Your task to perform on an android device: open sync settings in chrome Image 0: 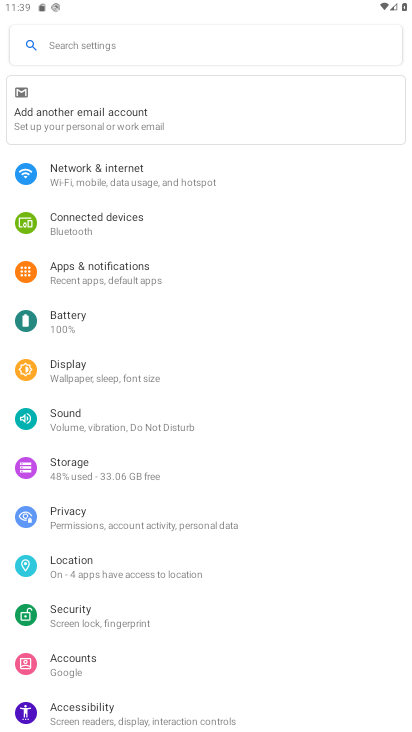
Step 0: press home button
Your task to perform on an android device: open sync settings in chrome Image 1: 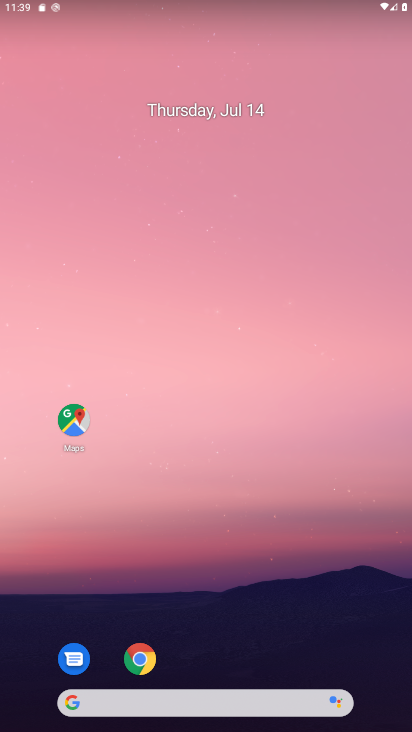
Step 1: drag from (246, 664) to (235, 144)
Your task to perform on an android device: open sync settings in chrome Image 2: 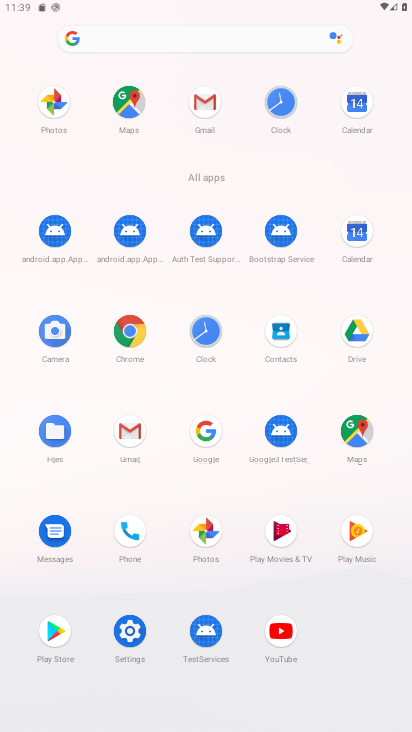
Step 2: click (137, 338)
Your task to perform on an android device: open sync settings in chrome Image 3: 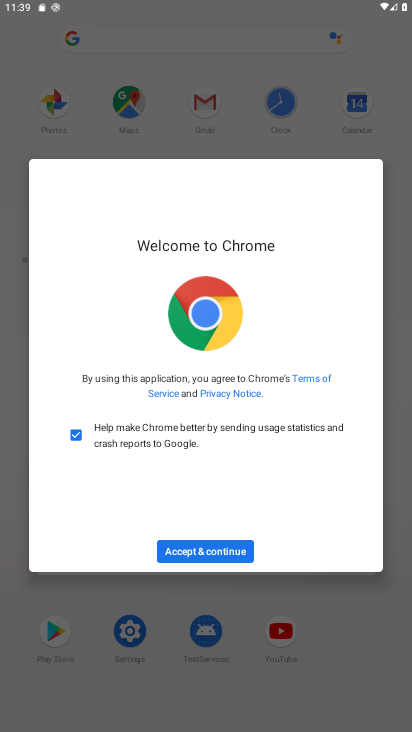
Step 3: click (195, 550)
Your task to perform on an android device: open sync settings in chrome Image 4: 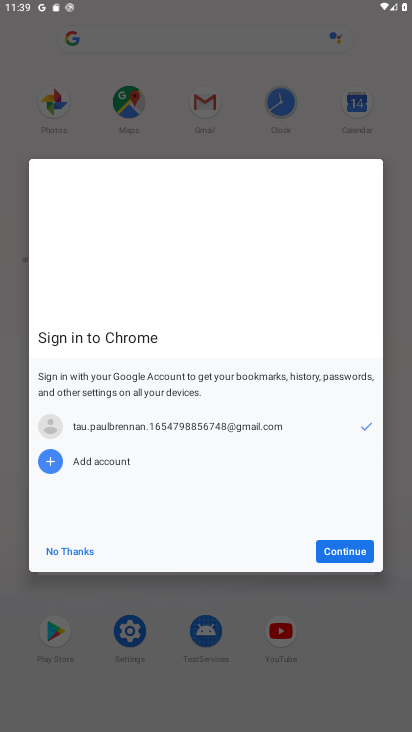
Step 4: click (338, 558)
Your task to perform on an android device: open sync settings in chrome Image 5: 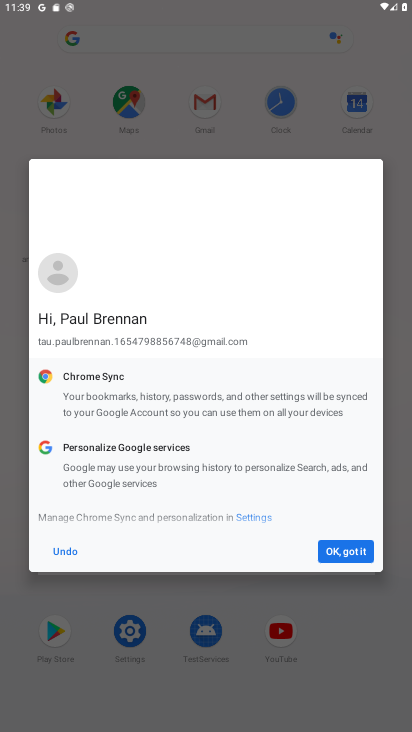
Step 5: click (338, 558)
Your task to perform on an android device: open sync settings in chrome Image 6: 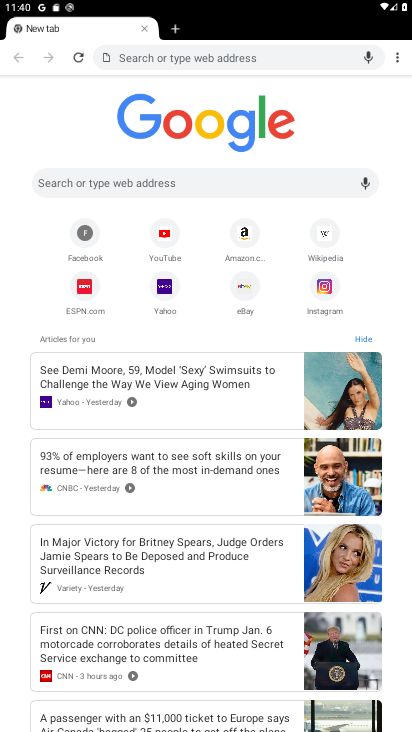
Step 6: click (397, 57)
Your task to perform on an android device: open sync settings in chrome Image 7: 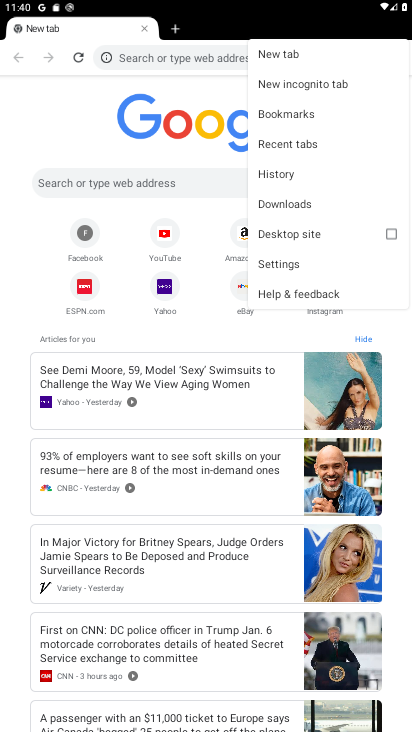
Step 7: click (316, 263)
Your task to perform on an android device: open sync settings in chrome Image 8: 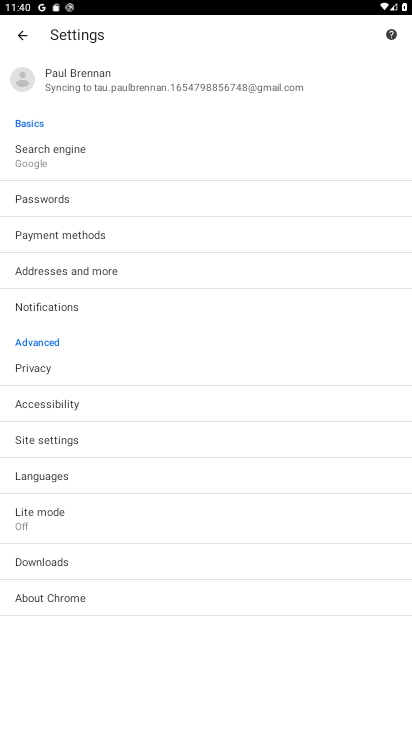
Step 8: click (162, 78)
Your task to perform on an android device: open sync settings in chrome Image 9: 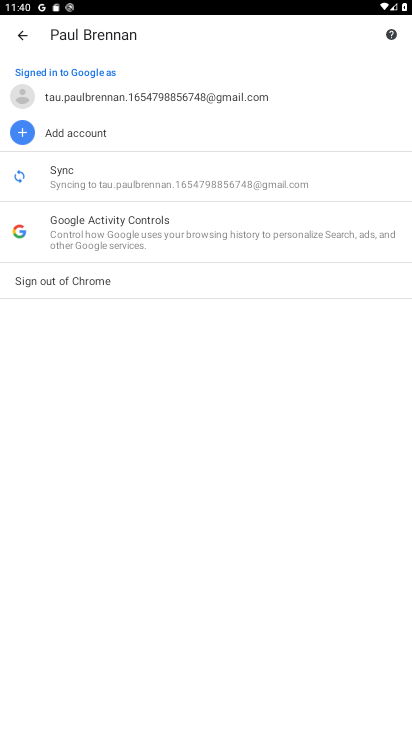
Step 9: click (166, 185)
Your task to perform on an android device: open sync settings in chrome Image 10: 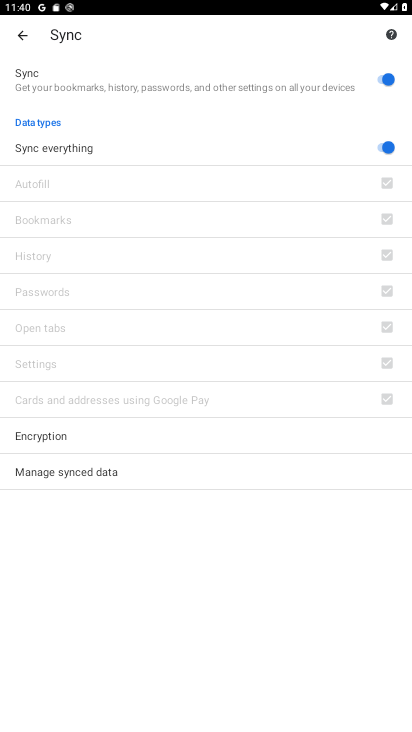
Step 10: task complete